Your task to perform on an android device: Open Android settings Image 0: 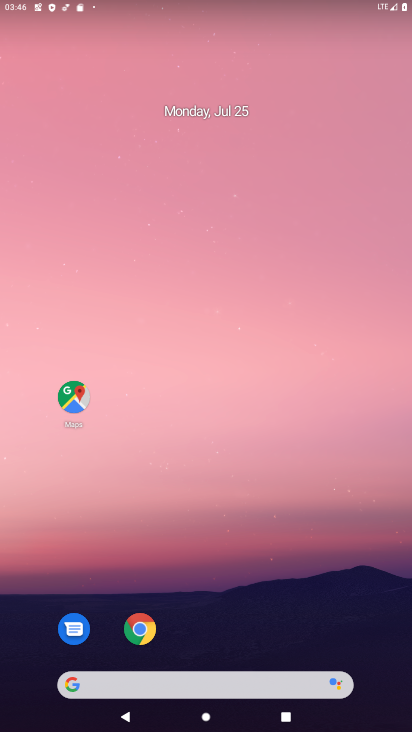
Step 0: drag from (327, 652) to (337, 3)
Your task to perform on an android device: Open Android settings Image 1: 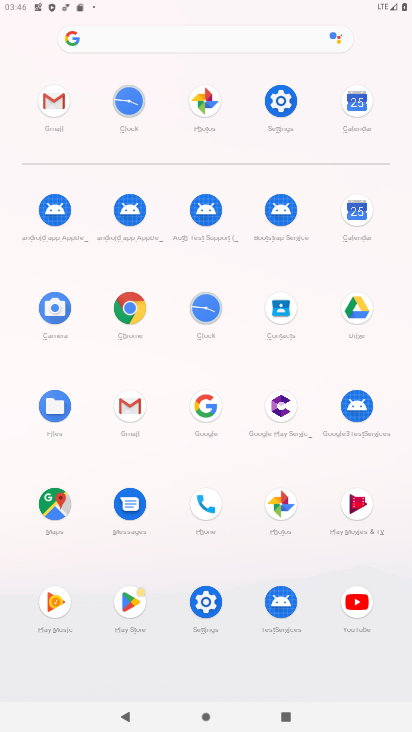
Step 1: click (285, 97)
Your task to perform on an android device: Open Android settings Image 2: 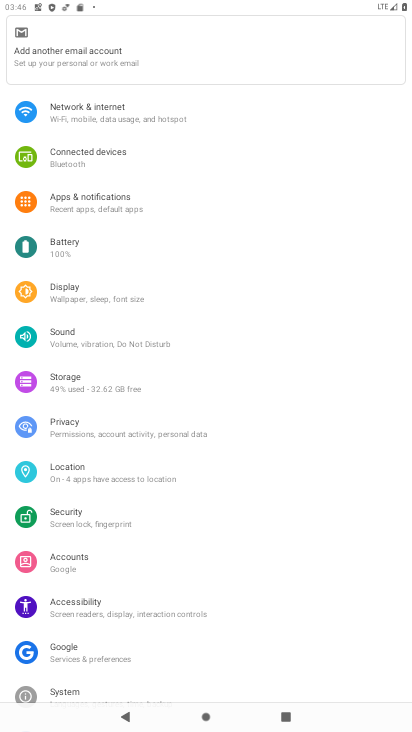
Step 2: task complete